Your task to perform on an android device: Search for vegetarian restaurants on Maps Image 0: 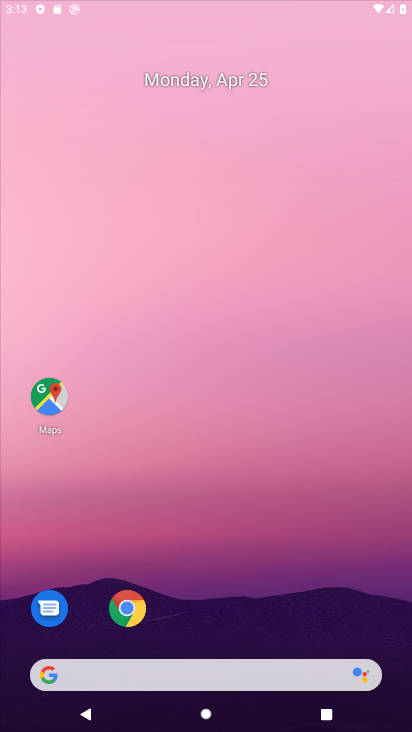
Step 0: click (259, 224)
Your task to perform on an android device: Search for vegetarian restaurants on Maps Image 1: 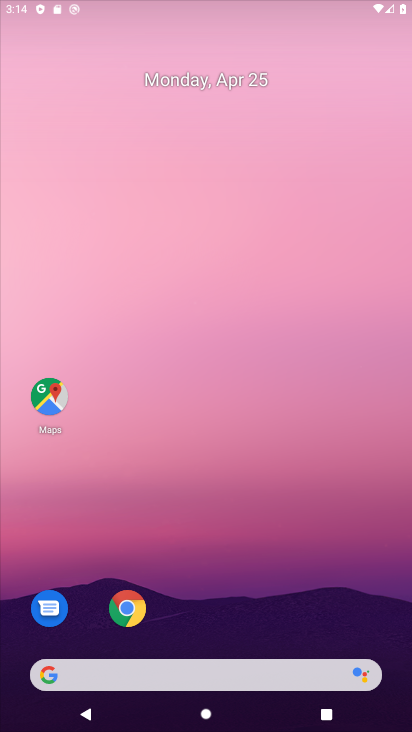
Step 1: press home button
Your task to perform on an android device: Search for vegetarian restaurants on Maps Image 2: 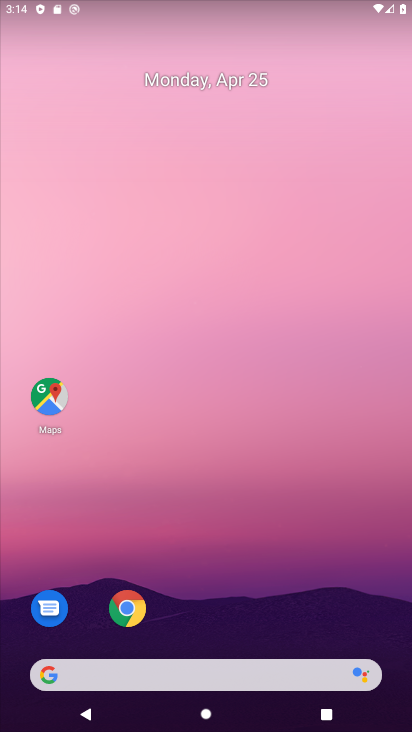
Step 2: click (50, 397)
Your task to perform on an android device: Search for vegetarian restaurants on Maps Image 3: 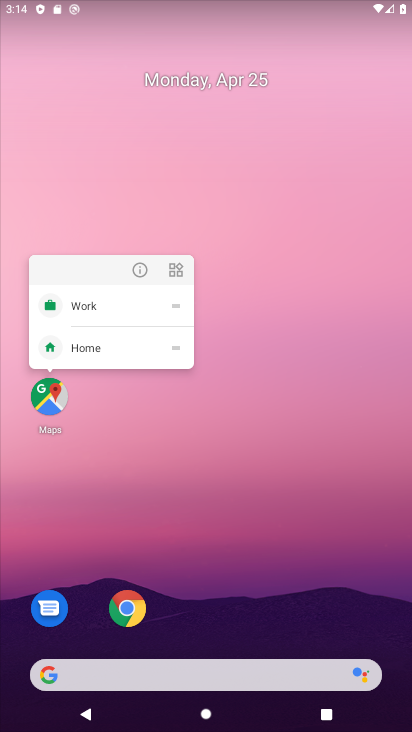
Step 3: click (58, 414)
Your task to perform on an android device: Search for vegetarian restaurants on Maps Image 4: 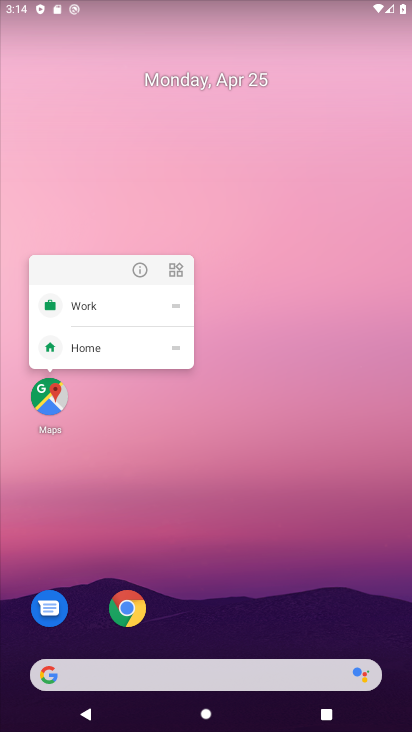
Step 4: click (59, 425)
Your task to perform on an android device: Search for vegetarian restaurants on Maps Image 5: 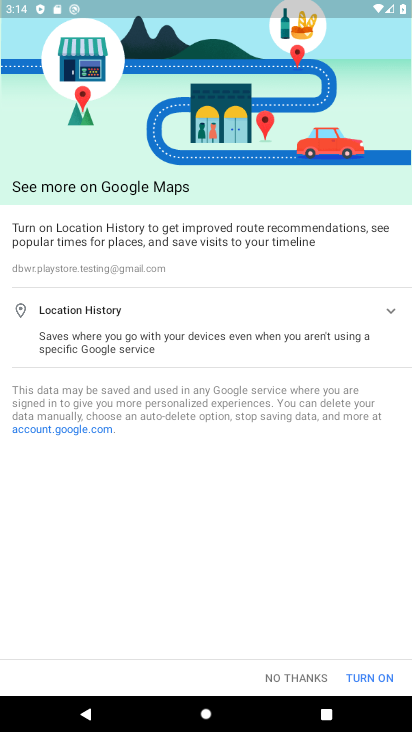
Step 5: click (362, 671)
Your task to perform on an android device: Search for vegetarian restaurants on Maps Image 6: 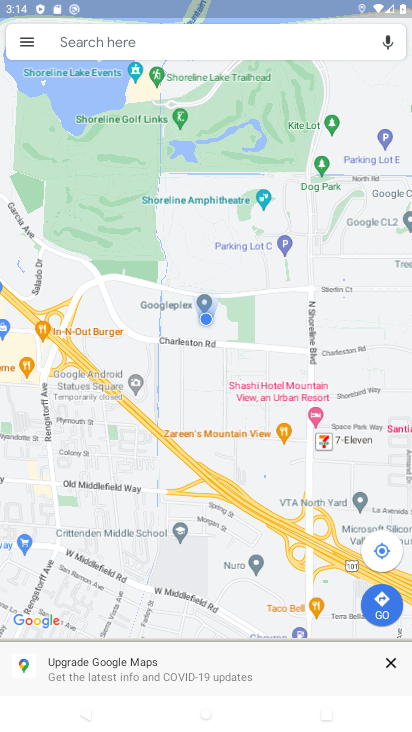
Step 6: click (220, 26)
Your task to perform on an android device: Search for vegetarian restaurants on Maps Image 7: 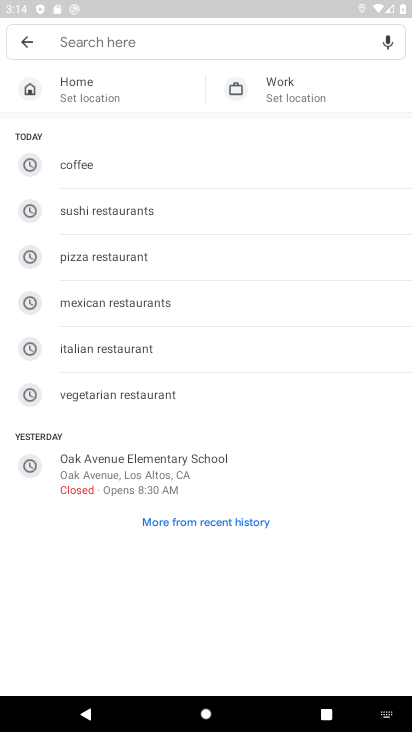
Step 7: click (142, 399)
Your task to perform on an android device: Search for vegetarian restaurants on Maps Image 8: 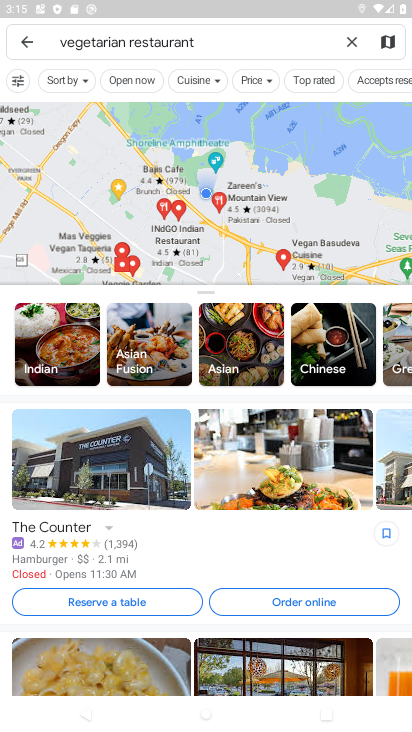
Step 8: task complete